Your task to perform on an android device: Turn off the flashlight Image 0: 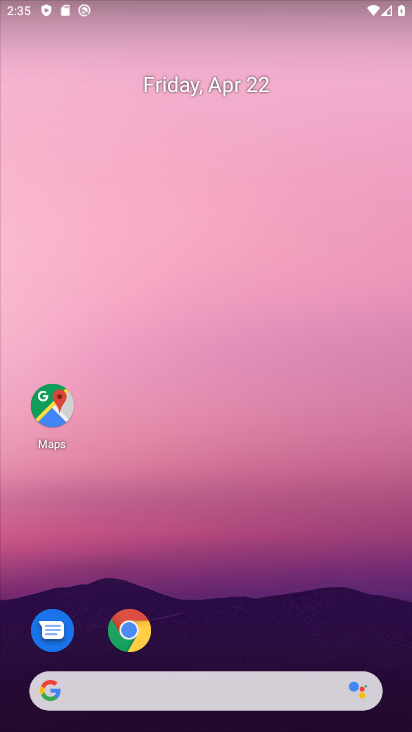
Step 0: drag from (348, 619) to (348, 226)
Your task to perform on an android device: Turn off the flashlight Image 1: 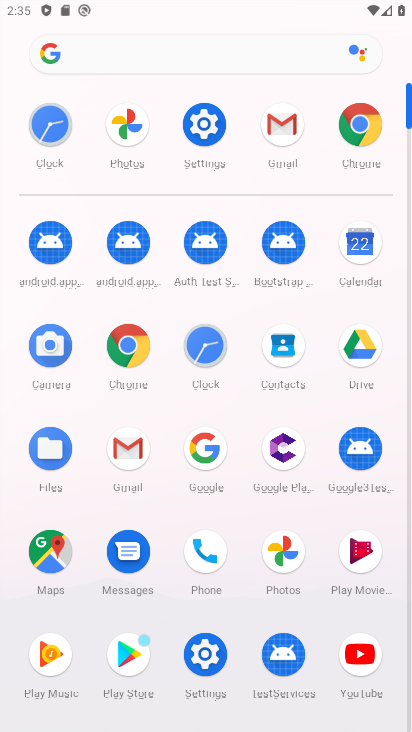
Step 1: click (205, 131)
Your task to perform on an android device: Turn off the flashlight Image 2: 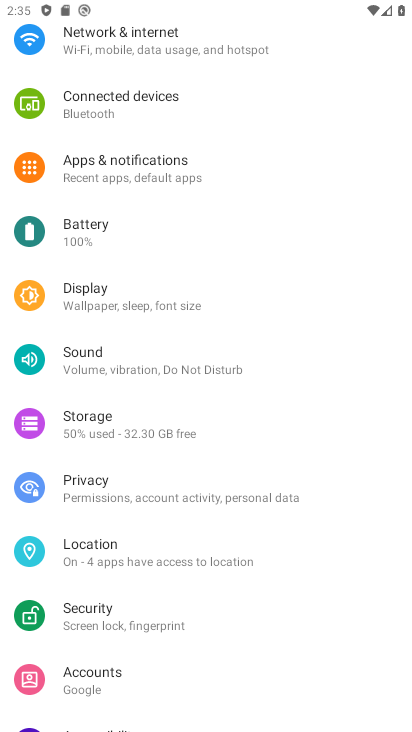
Step 2: drag from (222, 166) to (283, 480)
Your task to perform on an android device: Turn off the flashlight Image 3: 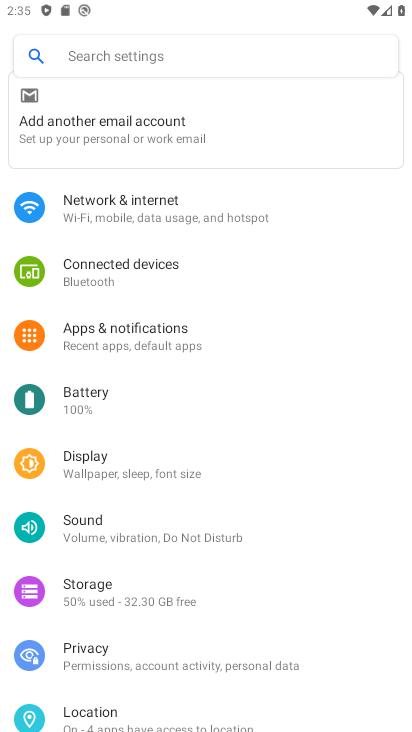
Step 3: click (197, 56)
Your task to perform on an android device: Turn off the flashlight Image 4: 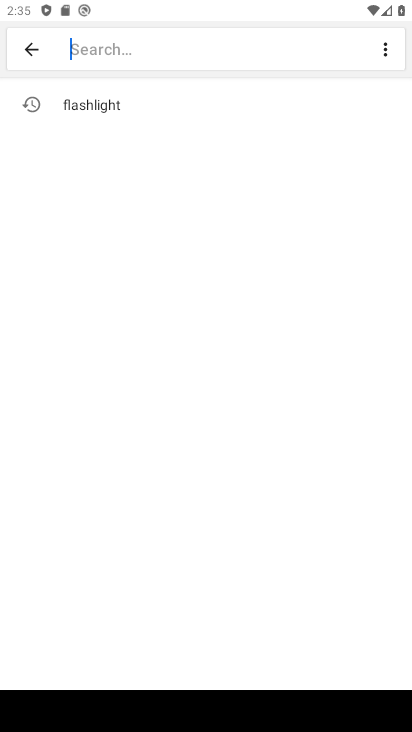
Step 4: type "flashlight"
Your task to perform on an android device: Turn off the flashlight Image 5: 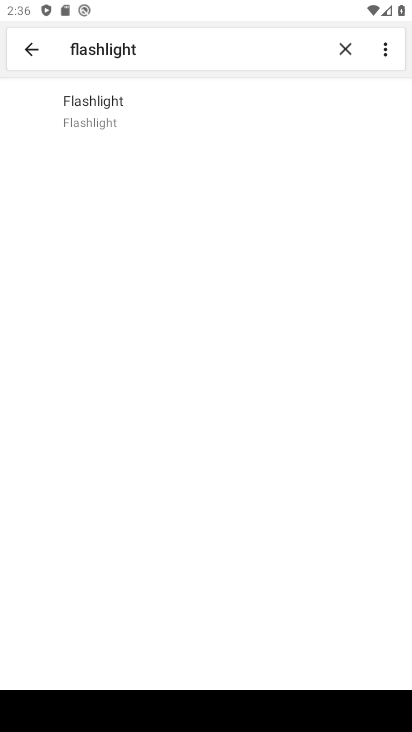
Step 5: click (112, 121)
Your task to perform on an android device: Turn off the flashlight Image 6: 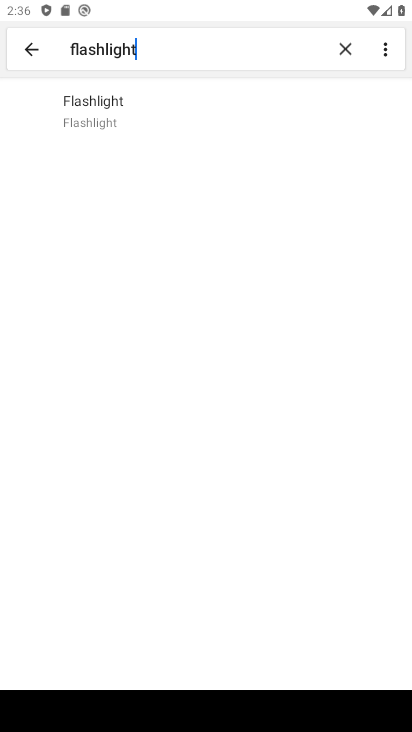
Step 6: task complete